Your task to perform on an android device: Go to Reddit.com Image 0: 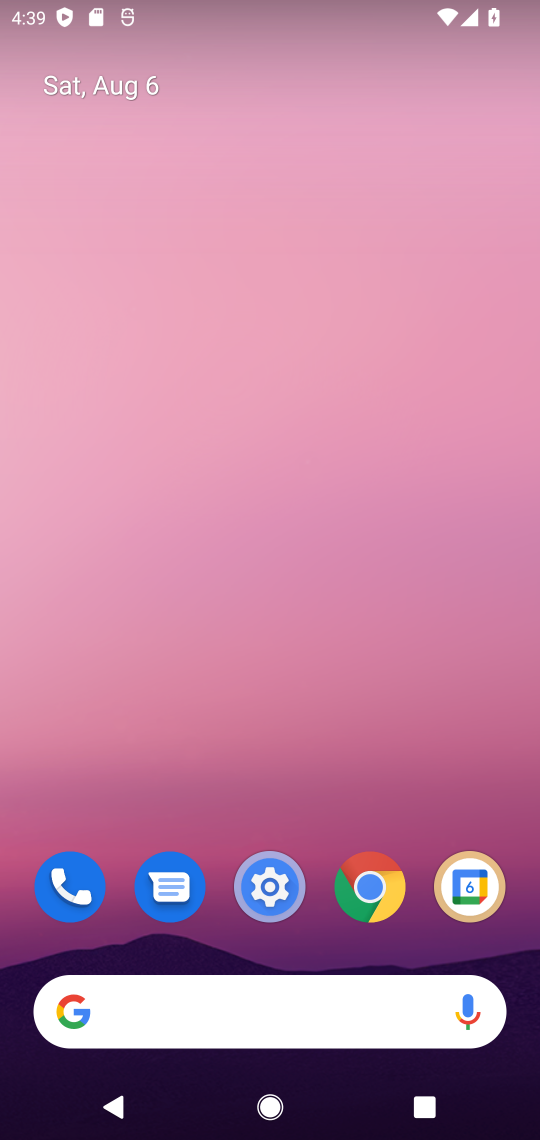
Step 0: click (380, 898)
Your task to perform on an android device: Go to Reddit.com Image 1: 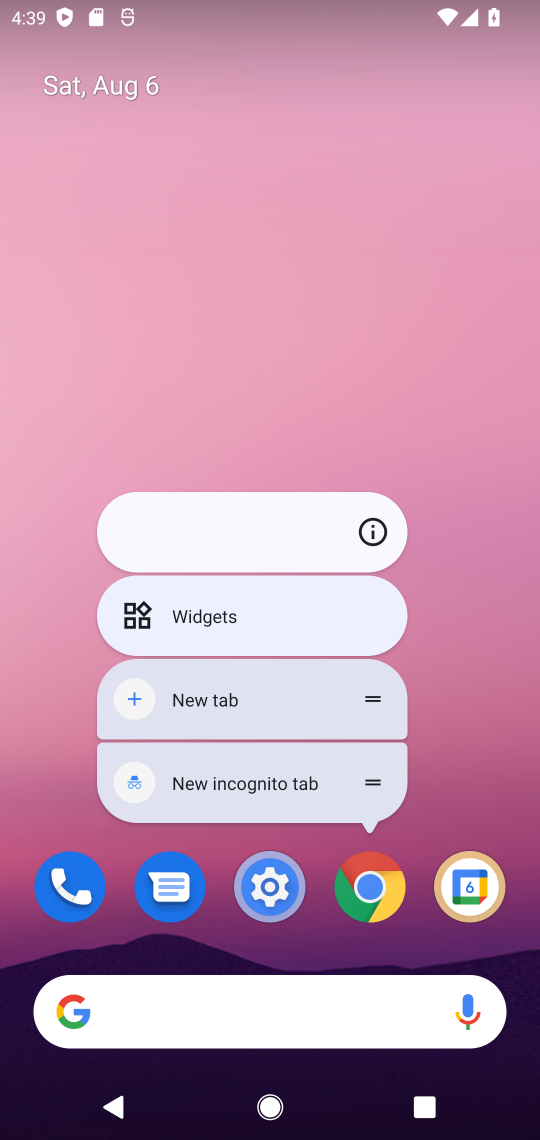
Step 1: click (376, 902)
Your task to perform on an android device: Go to Reddit.com Image 2: 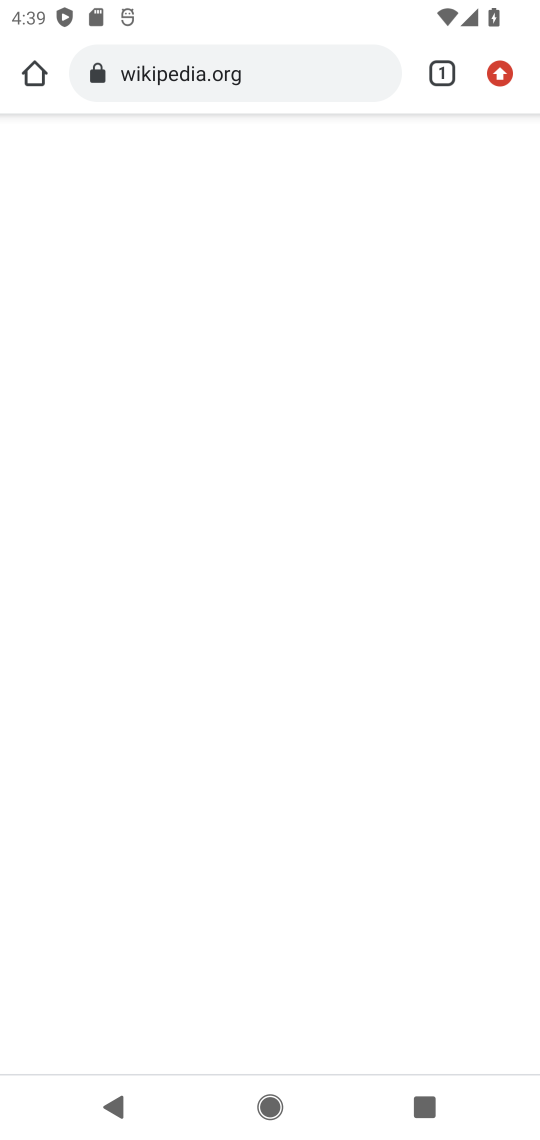
Step 2: click (282, 66)
Your task to perform on an android device: Go to Reddit.com Image 3: 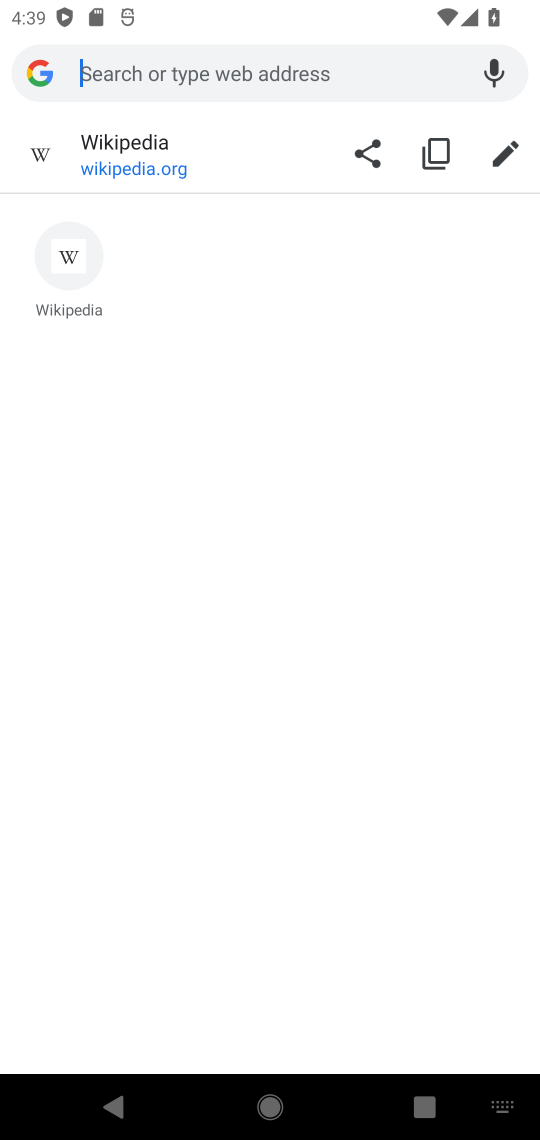
Step 3: type "reddit.com"
Your task to perform on an android device: Go to Reddit.com Image 4: 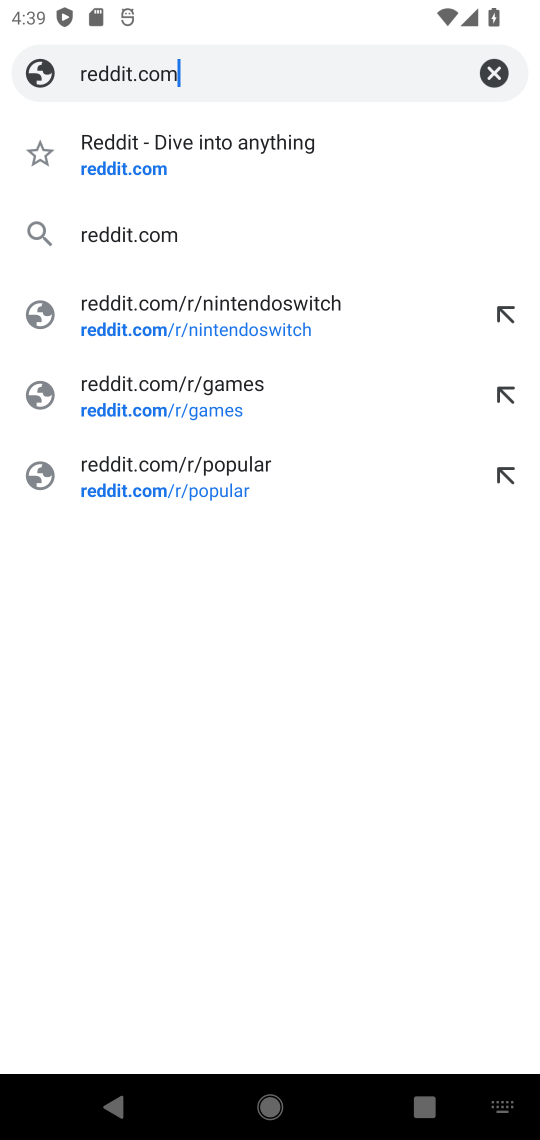
Step 4: click (231, 163)
Your task to perform on an android device: Go to Reddit.com Image 5: 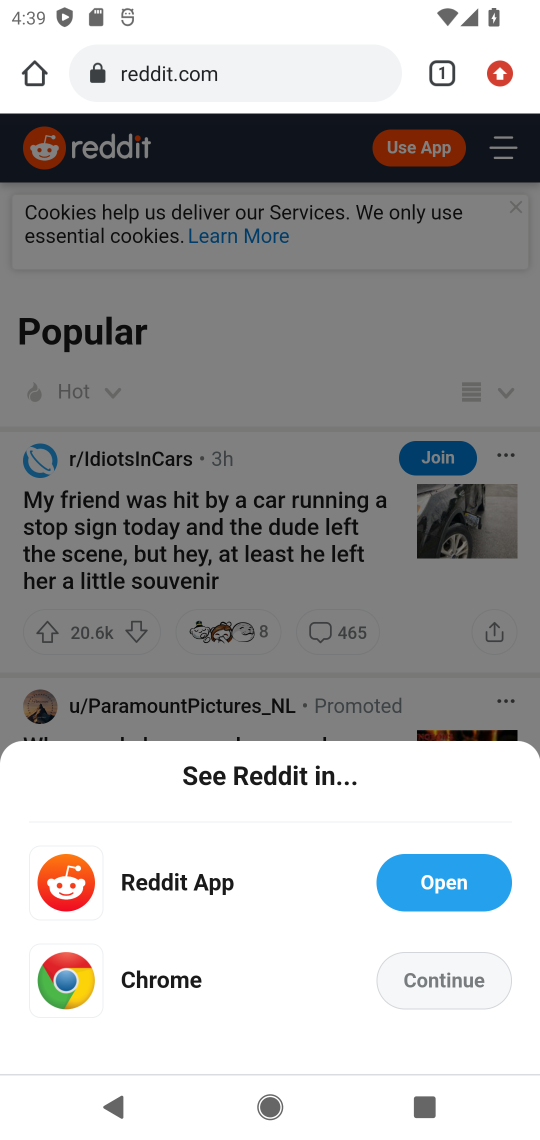
Step 5: task complete